Your task to perform on an android device: Go to Reddit.com Image 0: 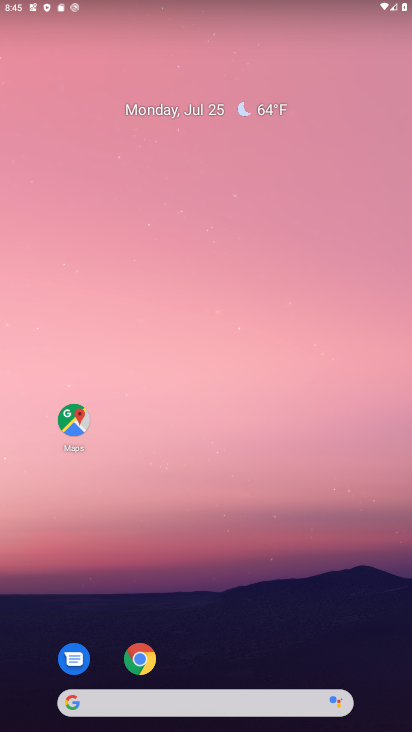
Step 0: press home button
Your task to perform on an android device: Go to Reddit.com Image 1: 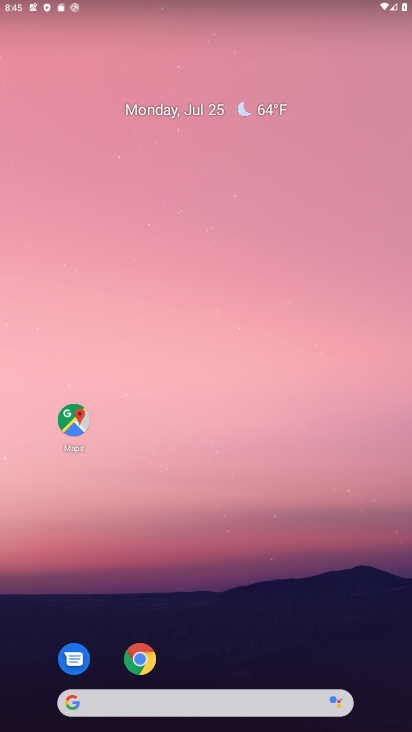
Step 1: drag from (321, 617) to (334, 137)
Your task to perform on an android device: Go to Reddit.com Image 2: 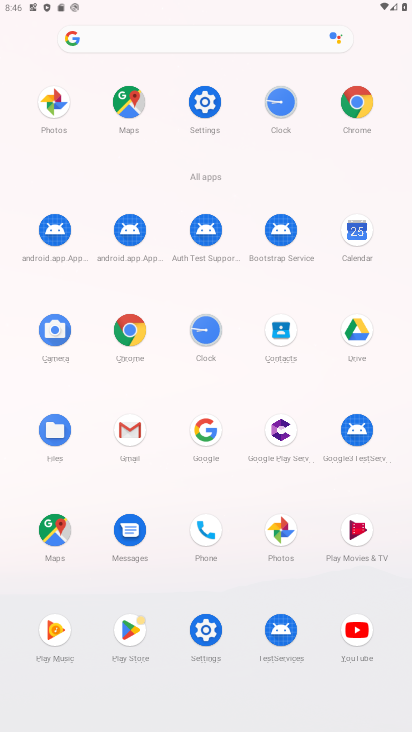
Step 2: click (139, 335)
Your task to perform on an android device: Go to Reddit.com Image 3: 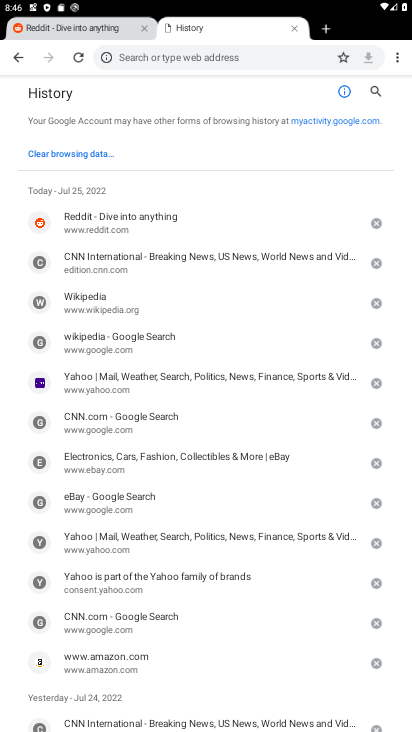
Step 3: click (259, 59)
Your task to perform on an android device: Go to Reddit.com Image 4: 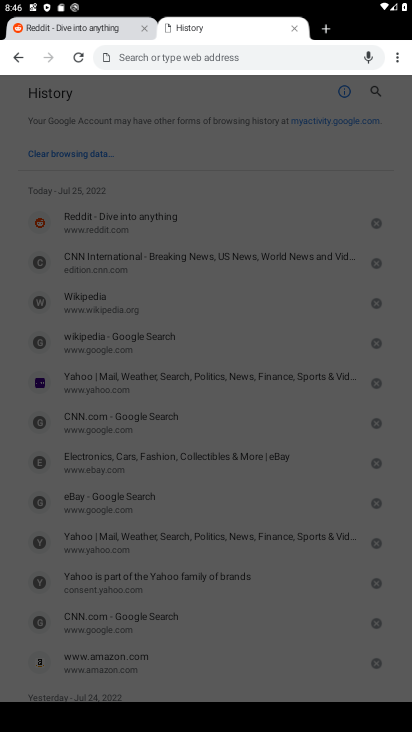
Step 4: type "reddit.com"
Your task to perform on an android device: Go to Reddit.com Image 5: 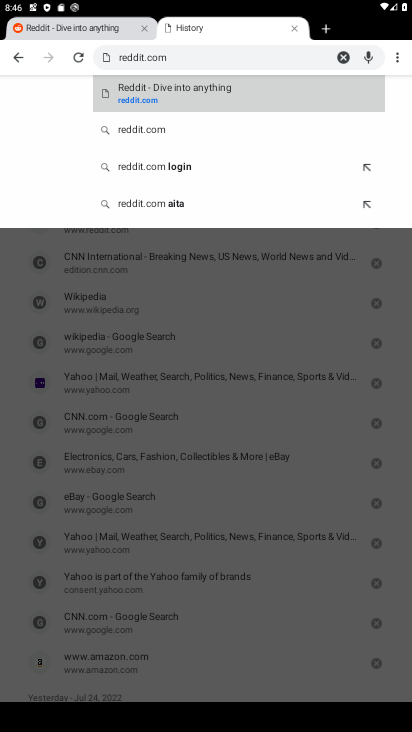
Step 5: click (213, 80)
Your task to perform on an android device: Go to Reddit.com Image 6: 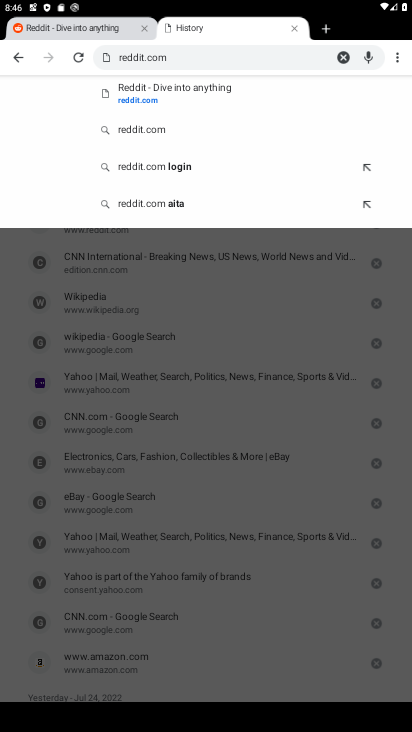
Step 6: click (211, 96)
Your task to perform on an android device: Go to Reddit.com Image 7: 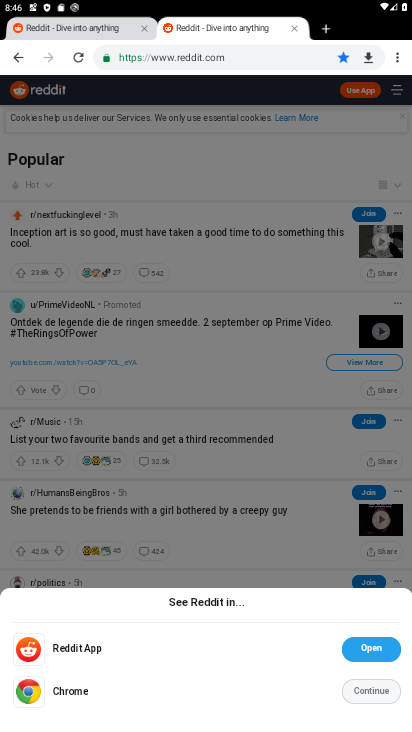
Step 7: task complete